Your task to perform on an android device: toggle priority inbox in the gmail app Image 0: 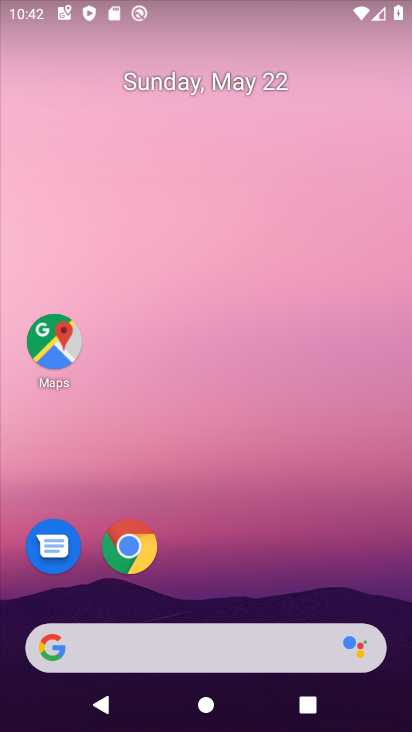
Step 0: drag from (214, 593) to (244, 18)
Your task to perform on an android device: toggle priority inbox in the gmail app Image 1: 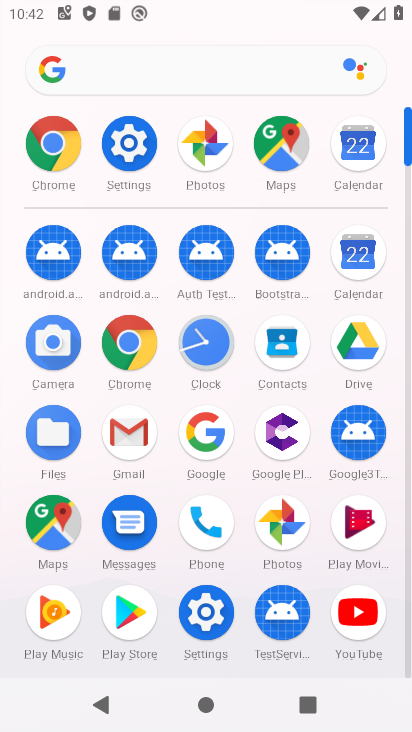
Step 1: click (138, 445)
Your task to perform on an android device: toggle priority inbox in the gmail app Image 2: 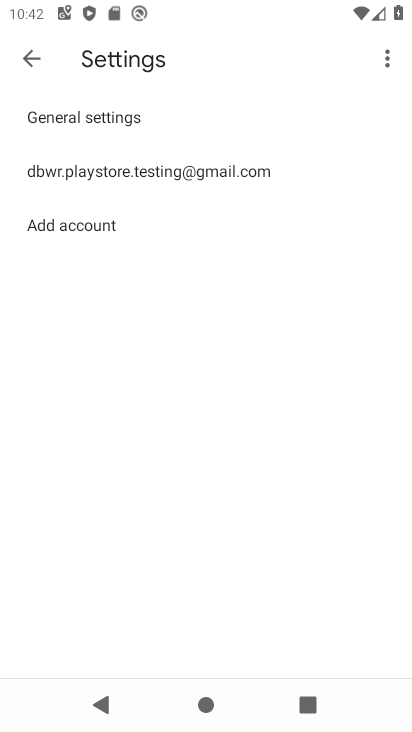
Step 2: click (102, 175)
Your task to perform on an android device: toggle priority inbox in the gmail app Image 3: 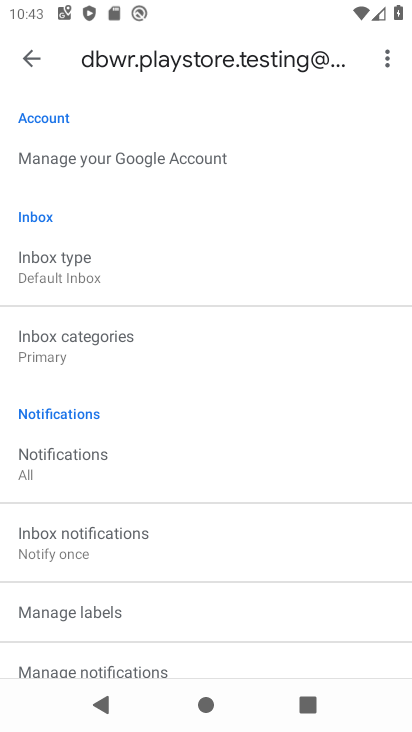
Step 3: click (98, 271)
Your task to perform on an android device: toggle priority inbox in the gmail app Image 4: 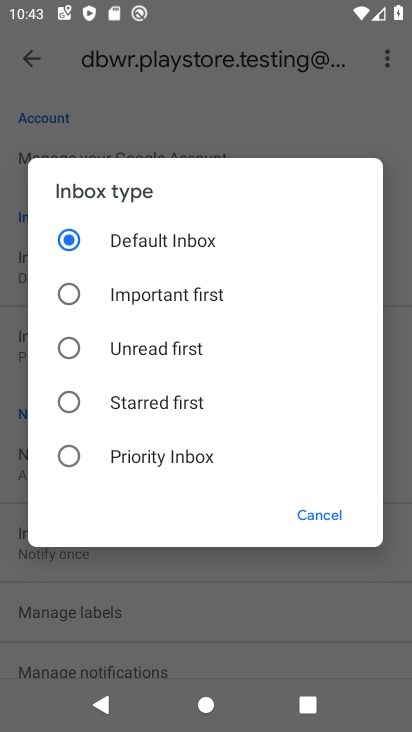
Step 4: click (116, 459)
Your task to perform on an android device: toggle priority inbox in the gmail app Image 5: 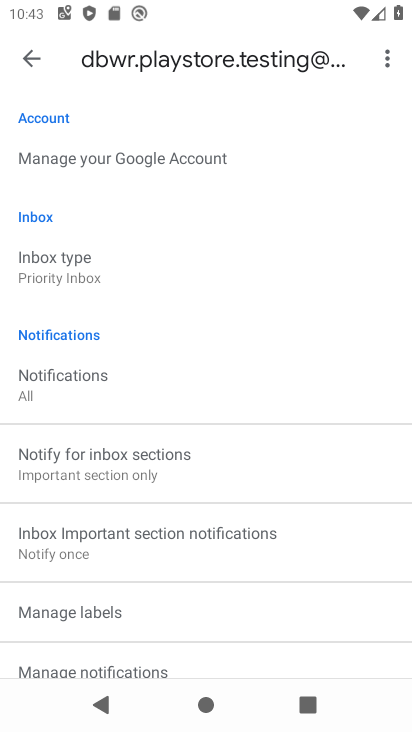
Step 5: task complete